Your task to perform on an android device: see tabs open on other devices in the chrome app Image 0: 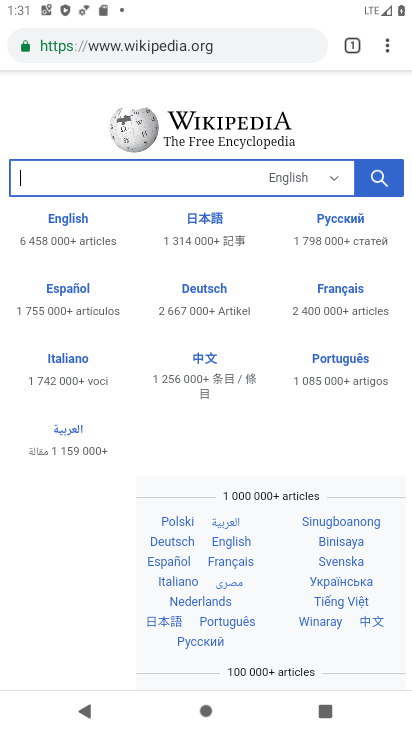
Step 0: click (388, 45)
Your task to perform on an android device: see tabs open on other devices in the chrome app Image 1: 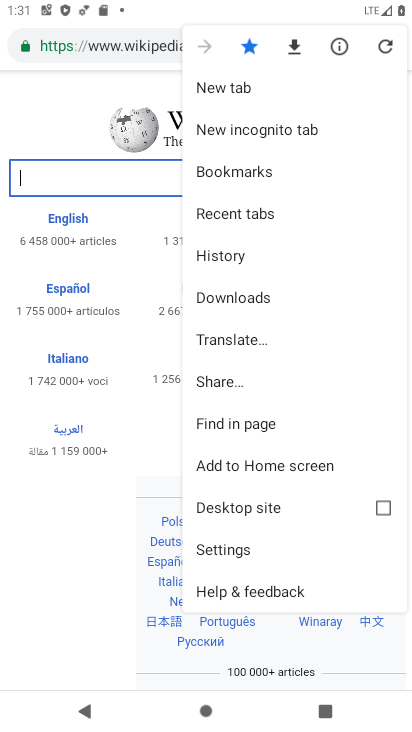
Step 1: click (226, 218)
Your task to perform on an android device: see tabs open on other devices in the chrome app Image 2: 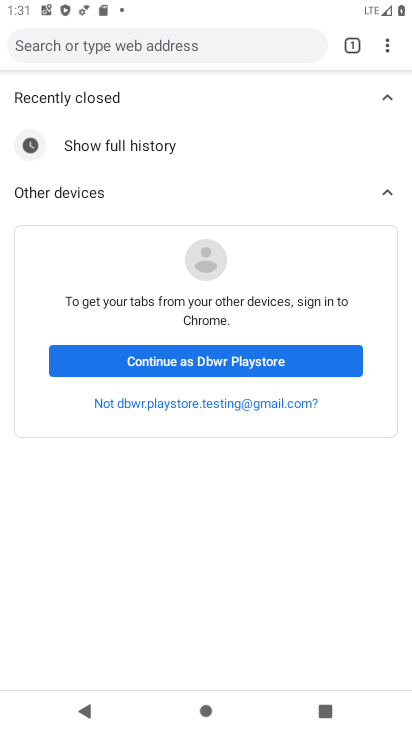
Step 2: click (197, 364)
Your task to perform on an android device: see tabs open on other devices in the chrome app Image 3: 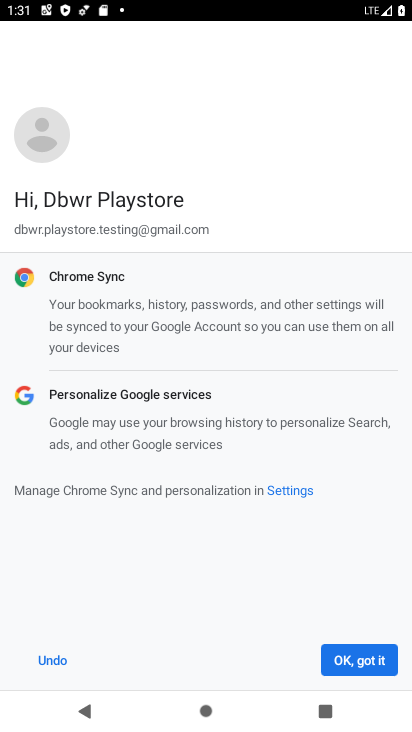
Step 3: click (354, 660)
Your task to perform on an android device: see tabs open on other devices in the chrome app Image 4: 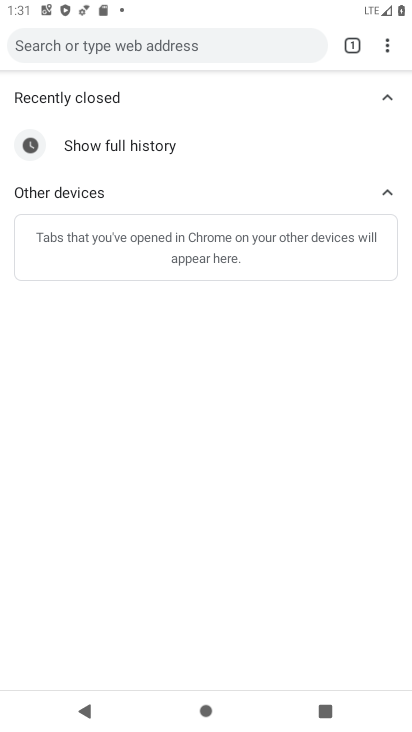
Step 4: task complete